Your task to perform on an android device: Open the map Image 0: 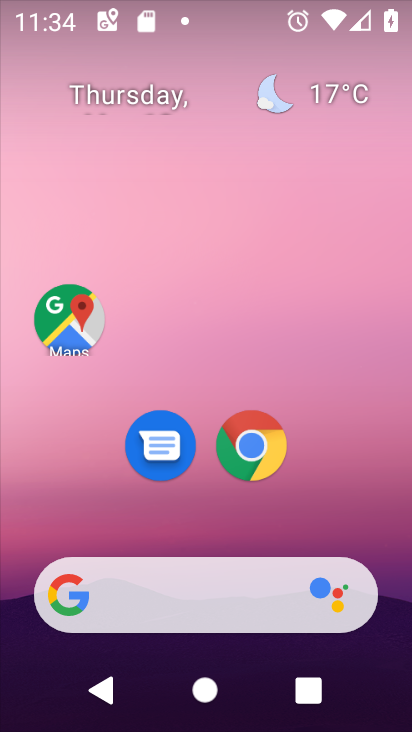
Step 0: drag from (239, 496) to (243, 188)
Your task to perform on an android device: Open the map Image 1: 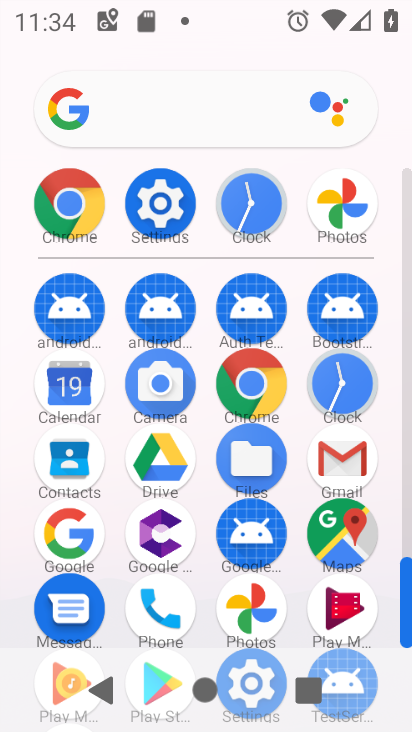
Step 1: click (342, 537)
Your task to perform on an android device: Open the map Image 2: 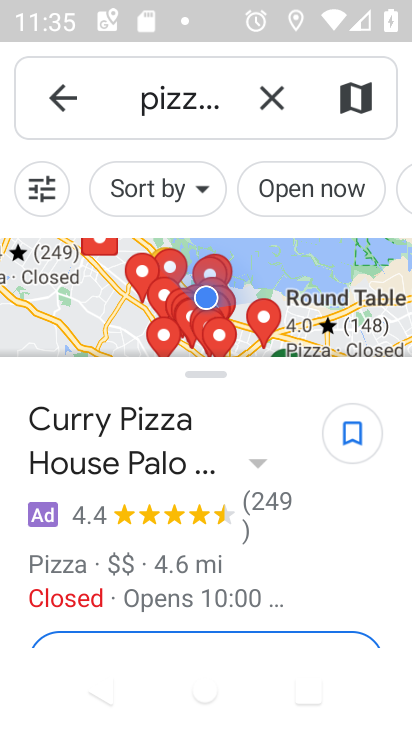
Step 2: task complete